Your task to perform on an android device: check out phone information Image 0: 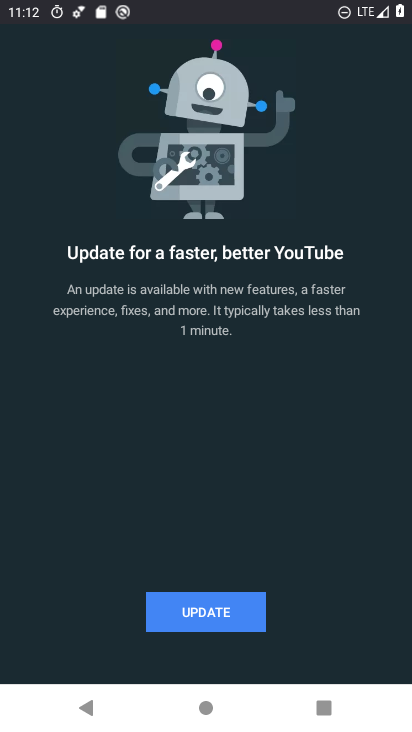
Step 0: press back button
Your task to perform on an android device: check out phone information Image 1: 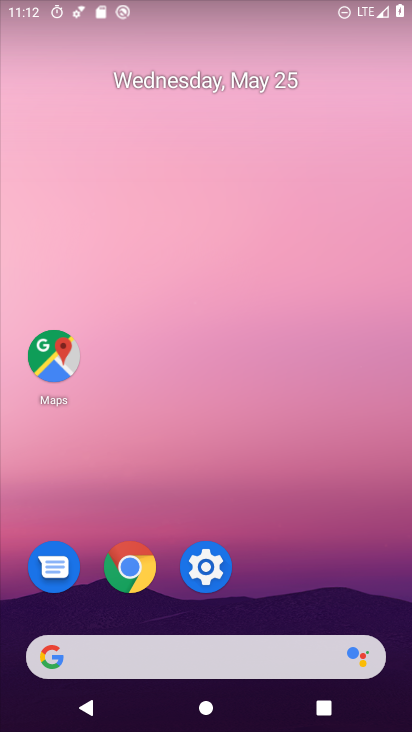
Step 1: drag from (283, 682) to (104, 131)
Your task to perform on an android device: check out phone information Image 2: 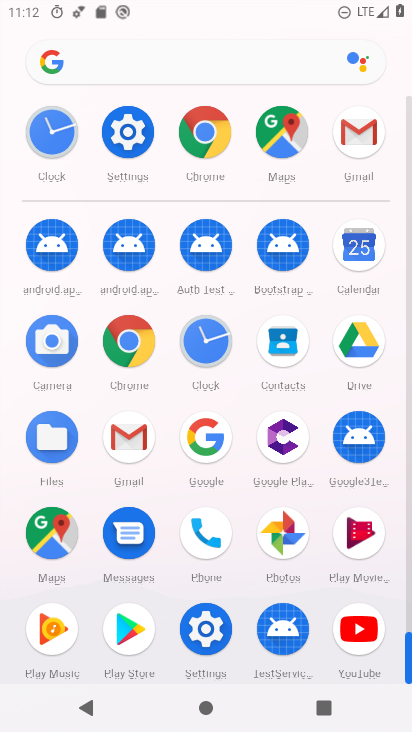
Step 2: click (122, 117)
Your task to perform on an android device: check out phone information Image 3: 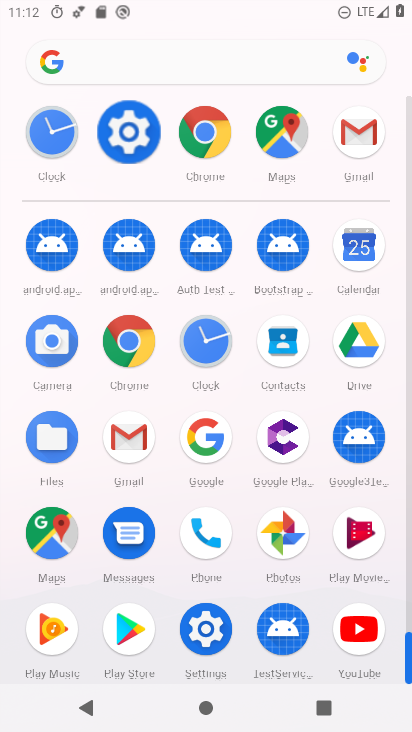
Step 3: click (123, 117)
Your task to perform on an android device: check out phone information Image 4: 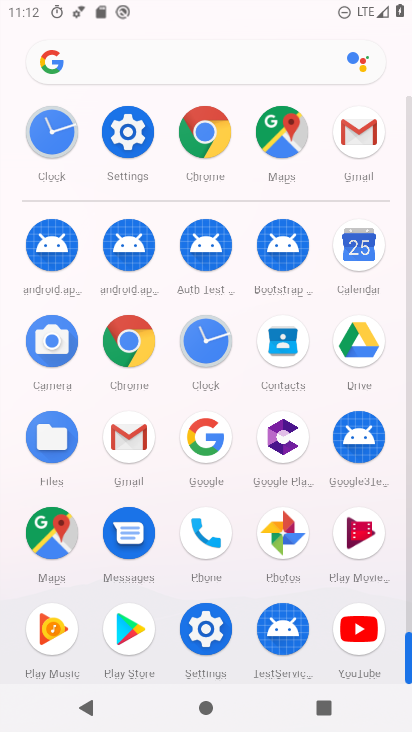
Step 4: click (127, 133)
Your task to perform on an android device: check out phone information Image 5: 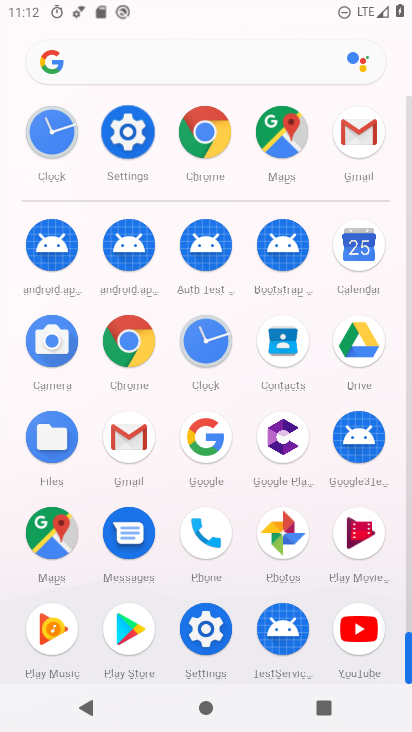
Step 5: click (127, 133)
Your task to perform on an android device: check out phone information Image 6: 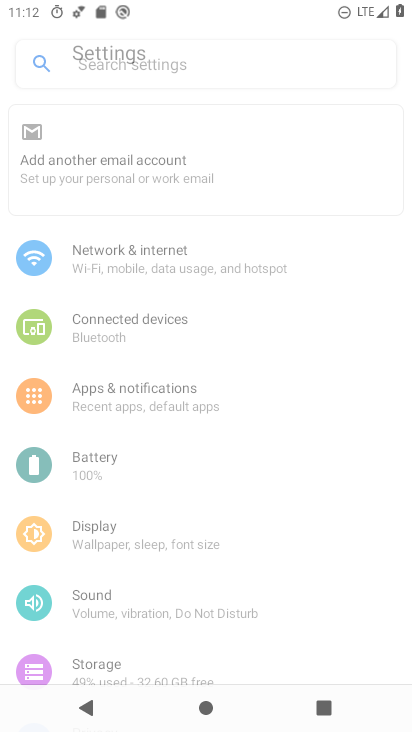
Step 6: click (127, 133)
Your task to perform on an android device: check out phone information Image 7: 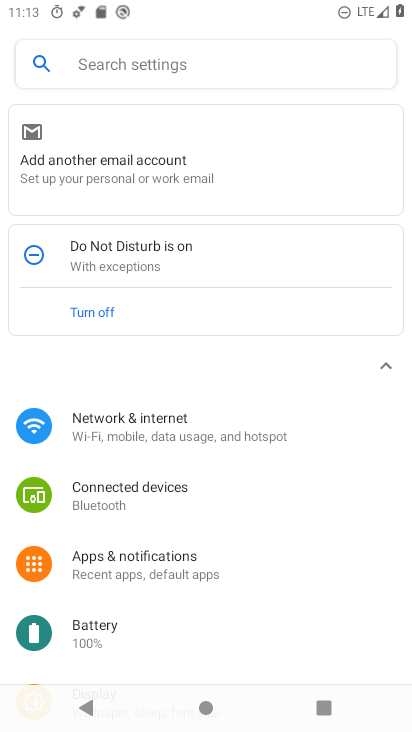
Step 7: drag from (146, 524) to (199, 253)
Your task to perform on an android device: check out phone information Image 8: 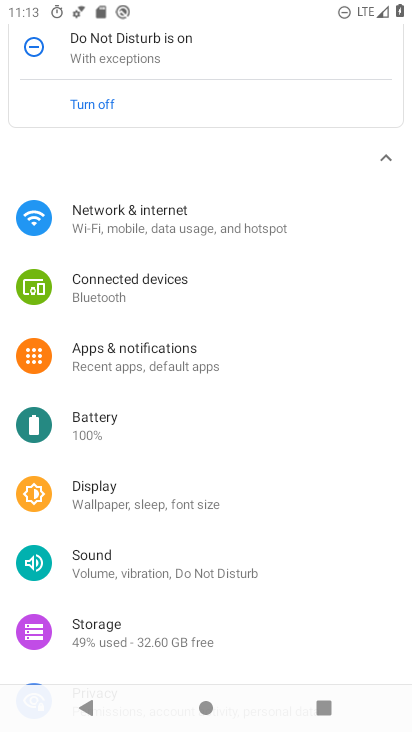
Step 8: drag from (285, 593) to (227, 221)
Your task to perform on an android device: check out phone information Image 9: 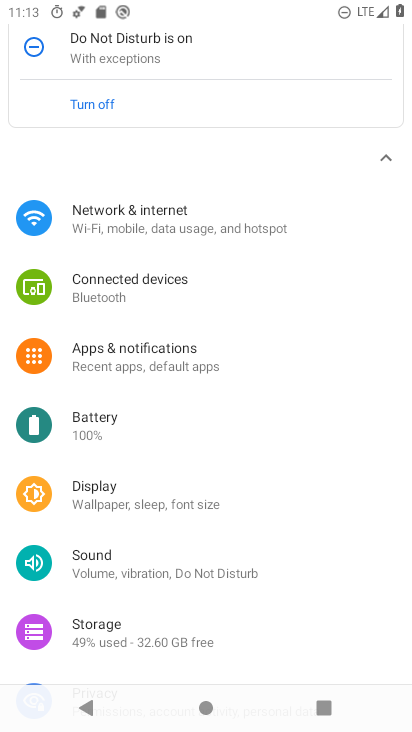
Step 9: drag from (172, 600) to (89, 213)
Your task to perform on an android device: check out phone information Image 10: 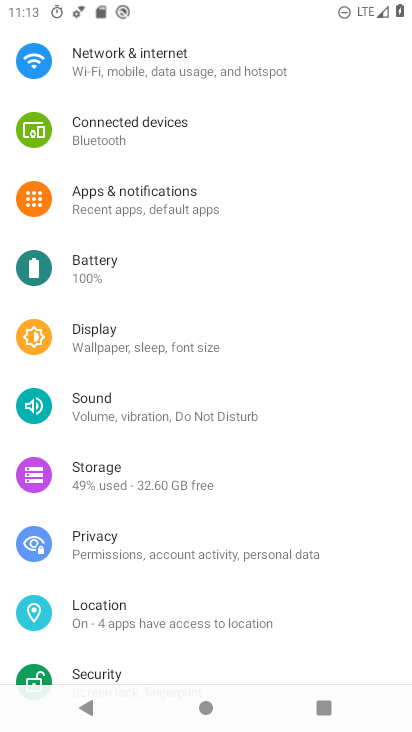
Step 10: drag from (236, 473) to (242, 115)
Your task to perform on an android device: check out phone information Image 11: 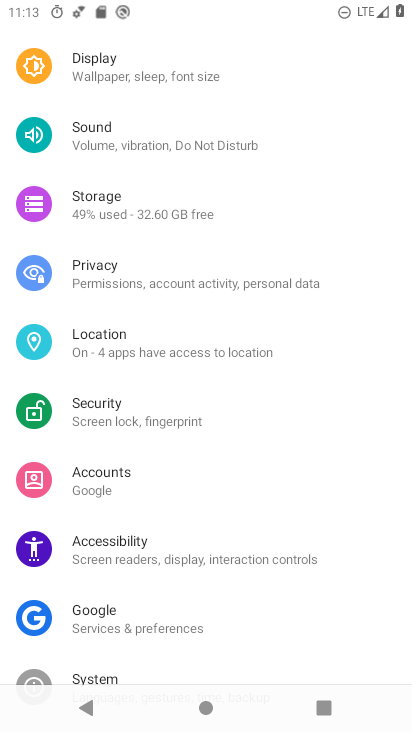
Step 11: drag from (117, 448) to (85, 251)
Your task to perform on an android device: check out phone information Image 12: 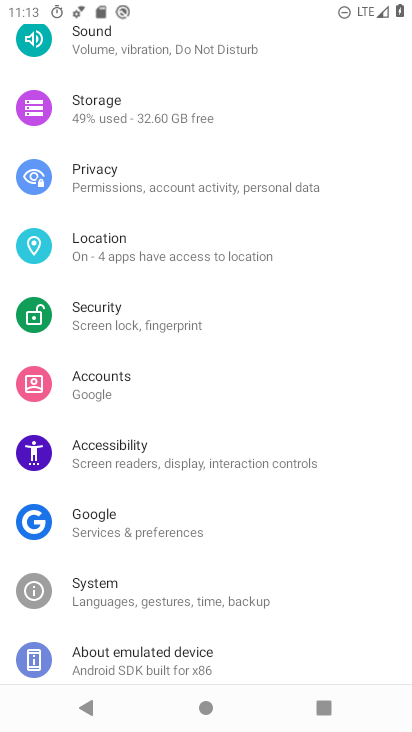
Step 12: drag from (201, 525) to (165, 304)
Your task to perform on an android device: check out phone information Image 13: 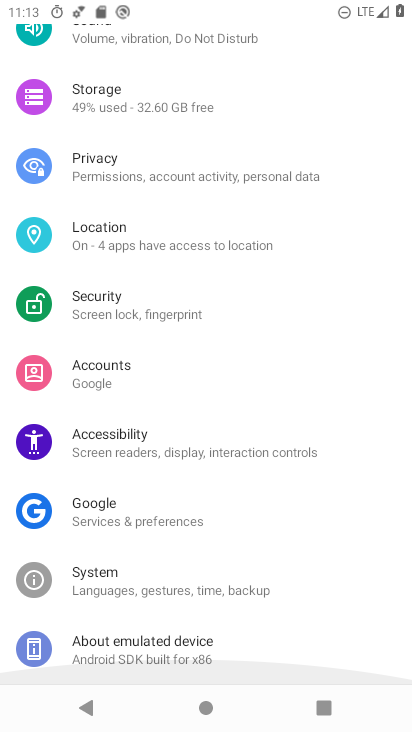
Step 13: drag from (217, 518) to (190, 150)
Your task to perform on an android device: check out phone information Image 14: 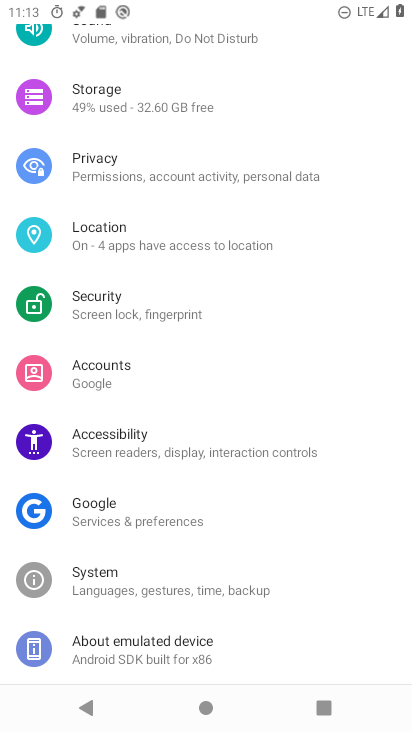
Step 14: click (139, 653)
Your task to perform on an android device: check out phone information Image 15: 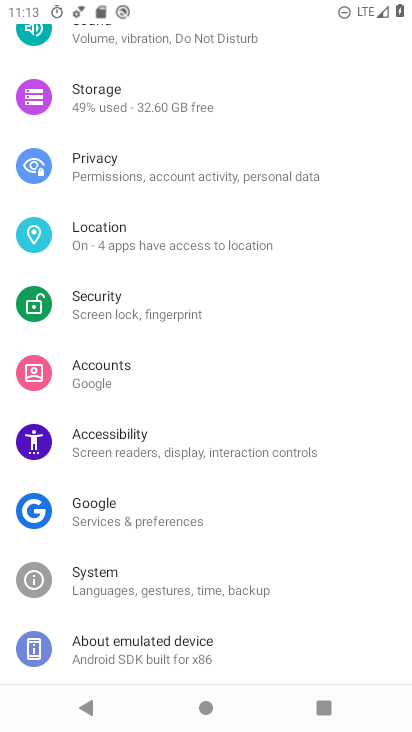
Step 15: click (140, 653)
Your task to perform on an android device: check out phone information Image 16: 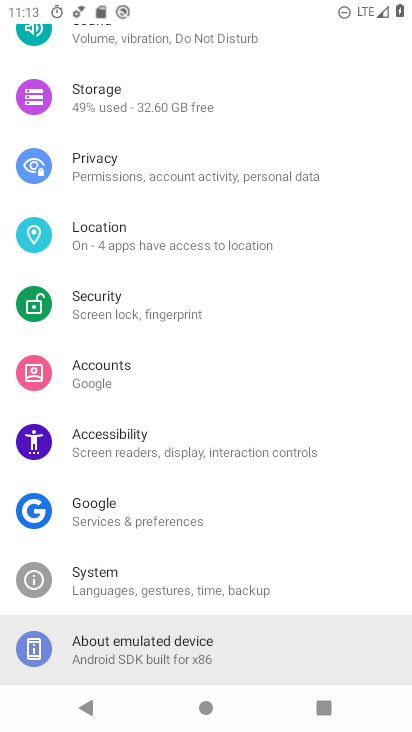
Step 16: click (144, 653)
Your task to perform on an android device: check out phone information Image 17: 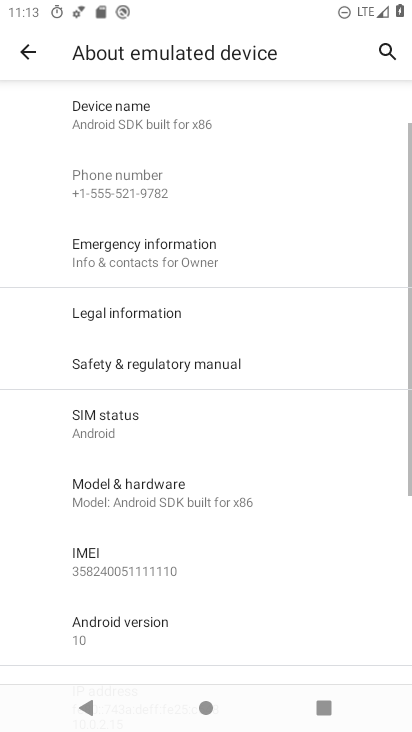
Step 17: task complete